Your task to perform on an android device: toggle pop-ups in chrome Image 0: 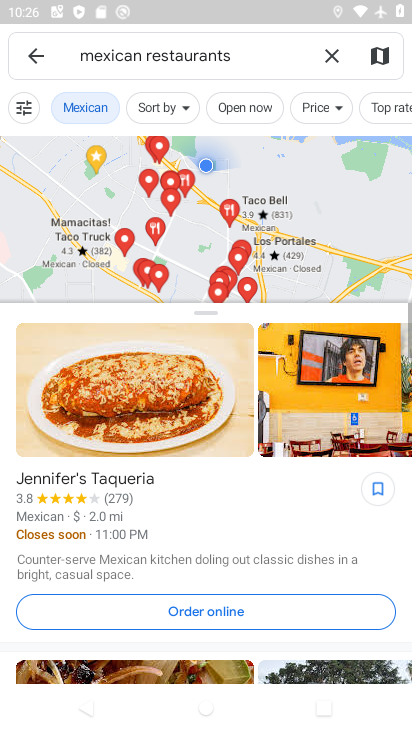
Step 0: press home button
Your task to perform on an android device: toggle pop-ups in chrome Image 1: 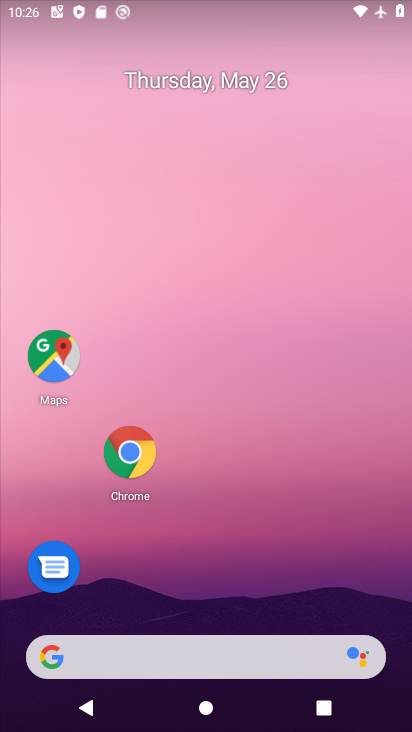
Step 1: click (127, 459)
Your task to perform on an android device: toggle pop-ups in chrome Image 2: 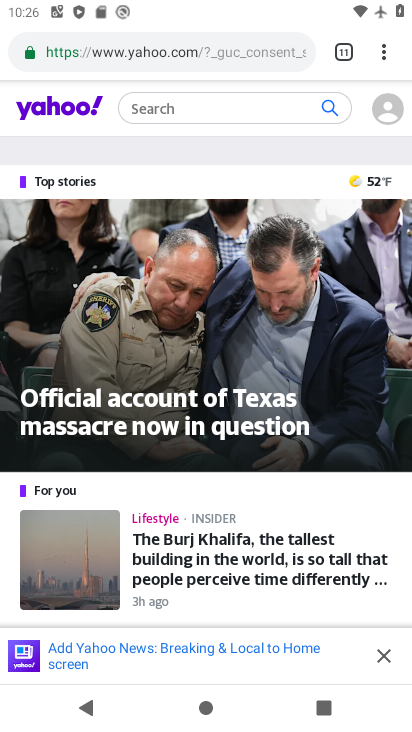
Step 2: drag from (385, 57) to (235, 626)
Your task to perform on an android device: toggle pop-ups in chrome Image 3: 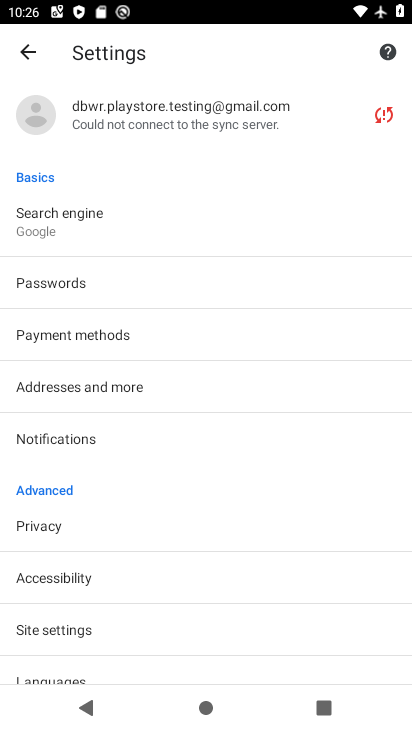
Step 3: click (78, 628)
Your task to perform on an android device: toggle pop-ups in chrome Image 4: 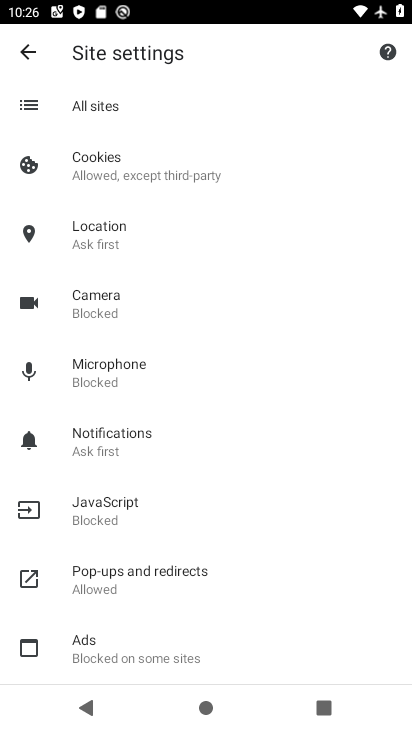
Step 4: click (154, 578)
Your task to perform on an android device: toggle pop-ups in chrome Image 5: 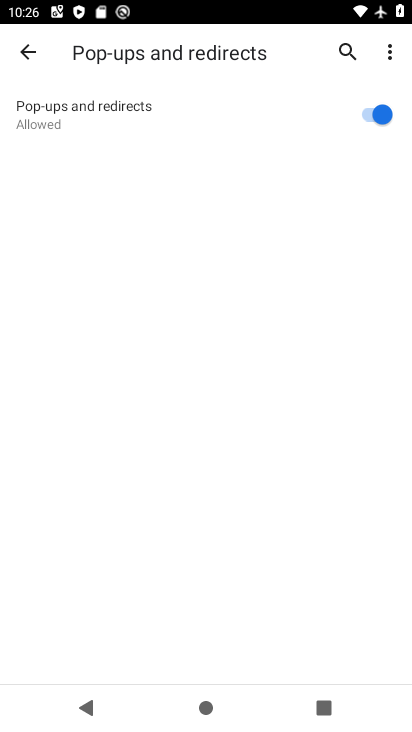
Step 5: click (366, 114)
Your task to perform on an android device: toggle pop-ups in chrome Image 6: 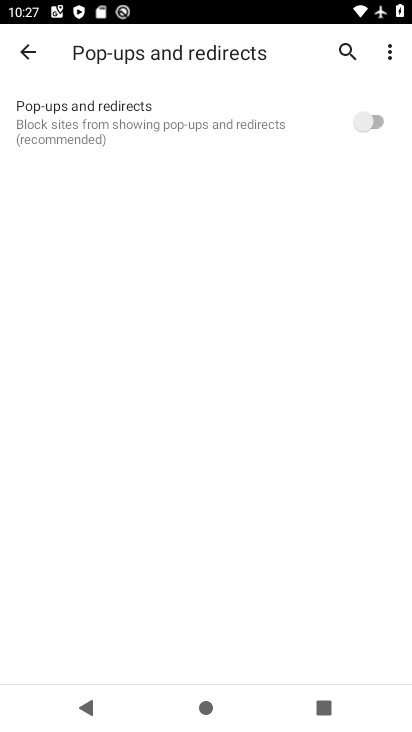
Step 6: task complete